Your task to perform on an android device: open app "Reddit" (install if not already installed) and go to login screen Image 0: 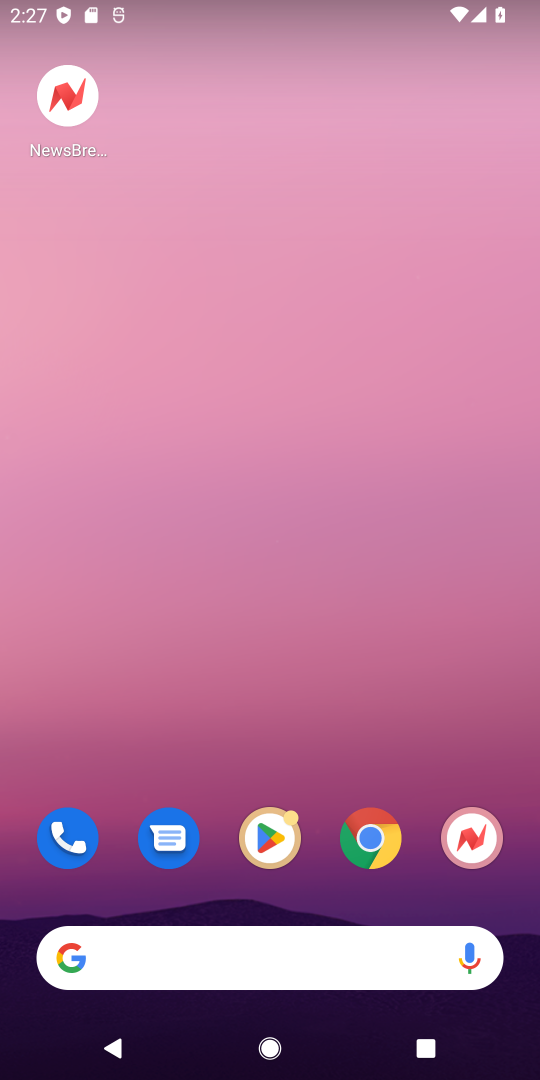
Step 0: press home button
Your task to perform on an android device: open app "Reddit" (install if not already installed) and go to login screen Image 1: 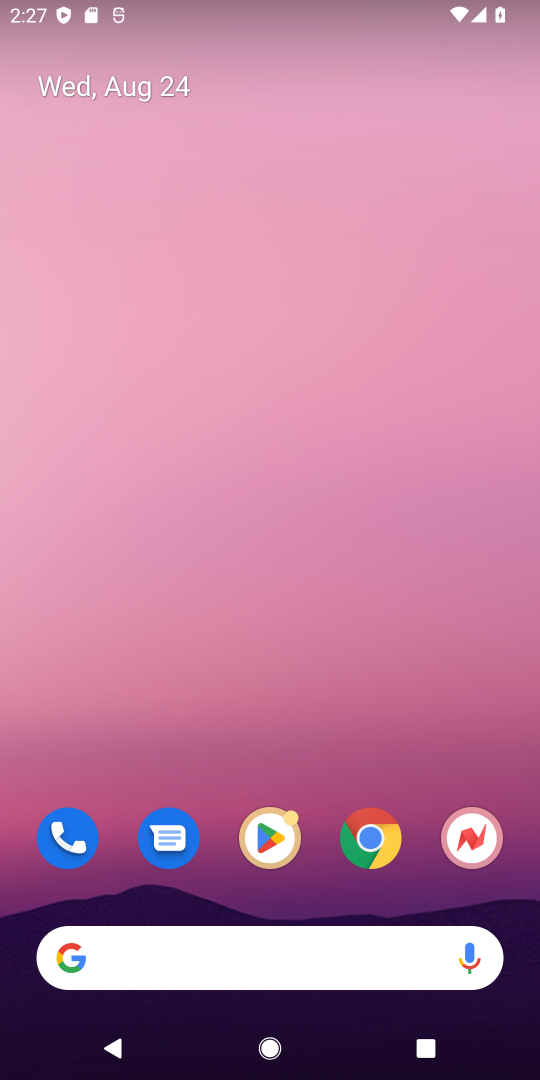
Step 1: drag from (443, 670) to (475, 65)
Your task to perform on an android device: open app "Reddit" (install if not already installed) and go to login screen Image 2: 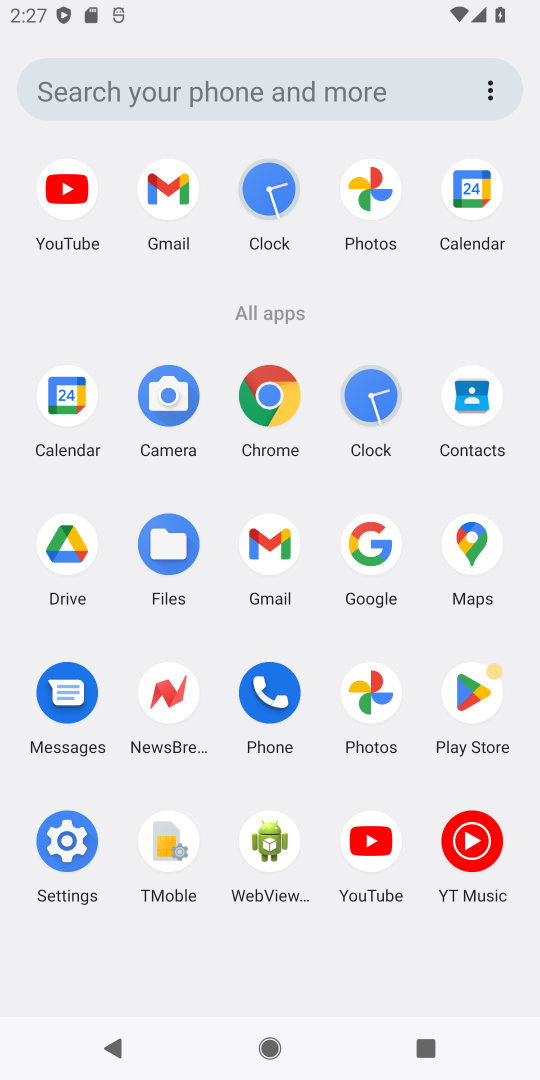
Step 2: click (471, 697)
Your task to perform on an android device: open app "Reddit" (install if not already installed) and go to login screen Image 3: 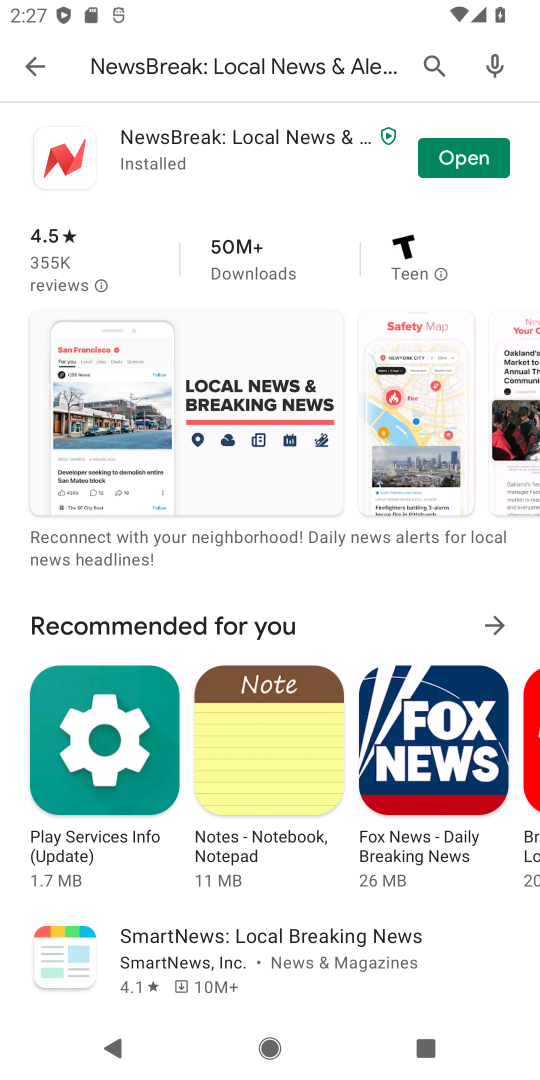
Step 3: press back button
Your task to perform on an android device: open app "Reddit" (install if not already installed) and go to login screen Image 4: 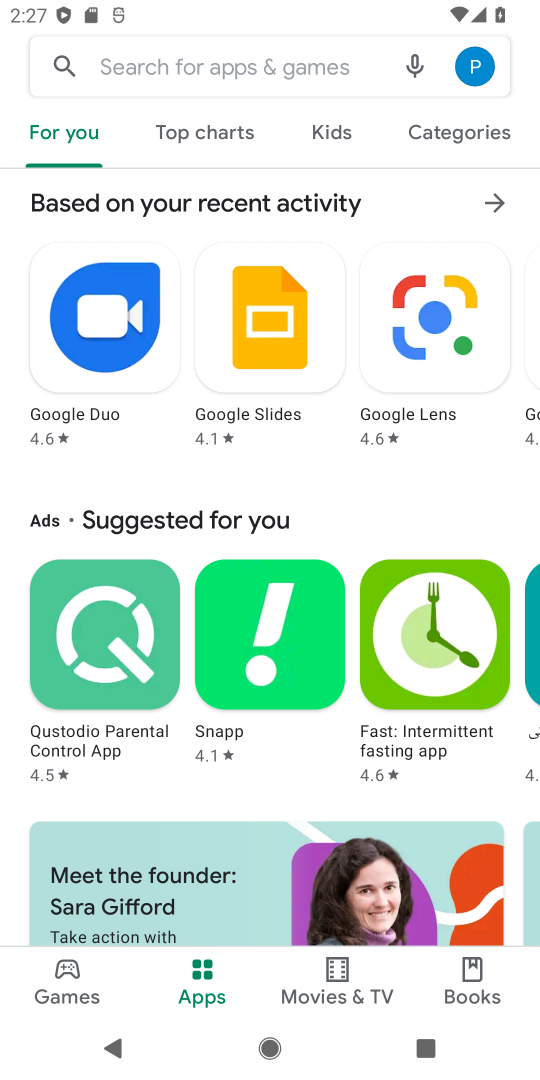
Step 4: click (324, 59)
Your task to perform on an android device: open app "Reddit" (install if not already installed) and go to login screen Image 5: 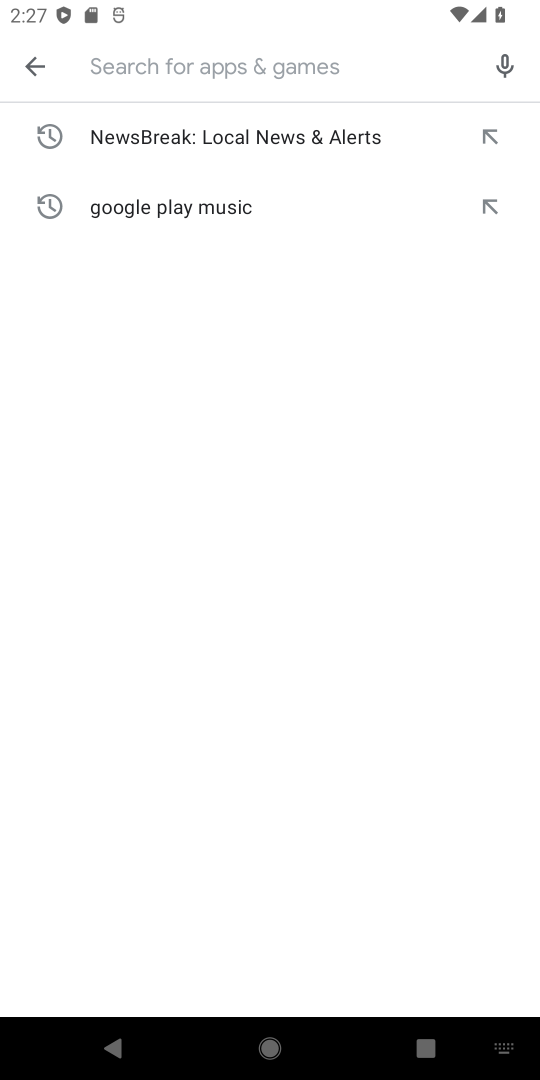
Step 5: press enter
Your task to perform on an android device: open app "Reddit" (install if not already installed) and go to login screen Image 6: 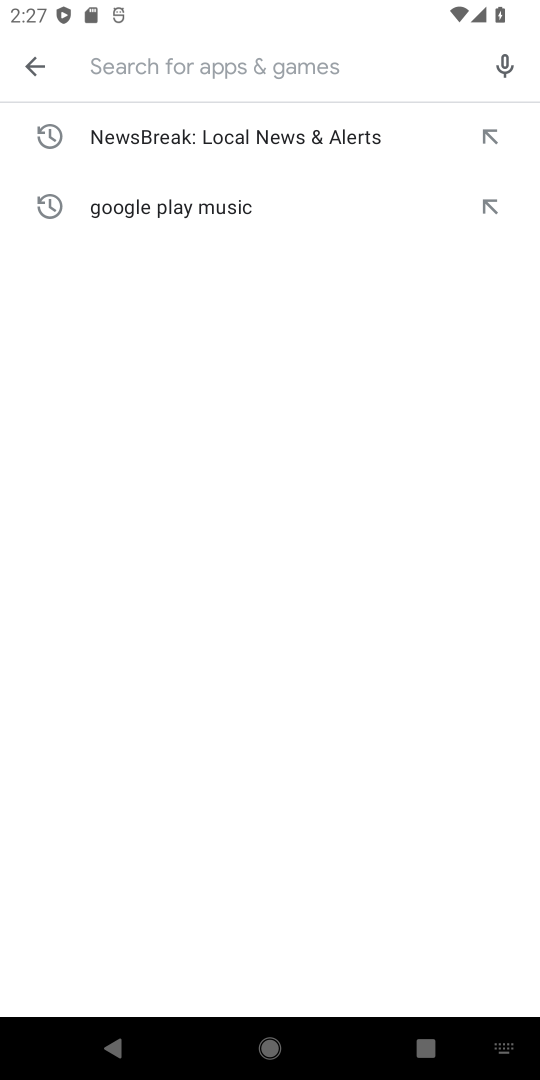
Step 6: type "reddit"
Your task to perform on an android device: open app "Reddit" (install if not already installed) and go to login screen Image 7: 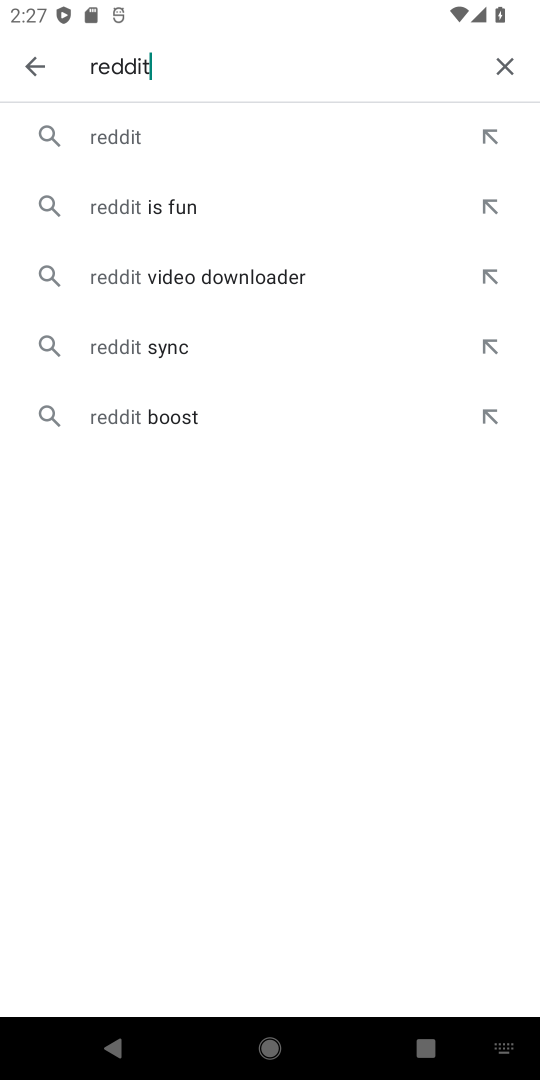
Step 7: click (125, 142)
Your task to perform on an android device: open app "Reddit" (install if not already installed) and go to login screen Image 8: 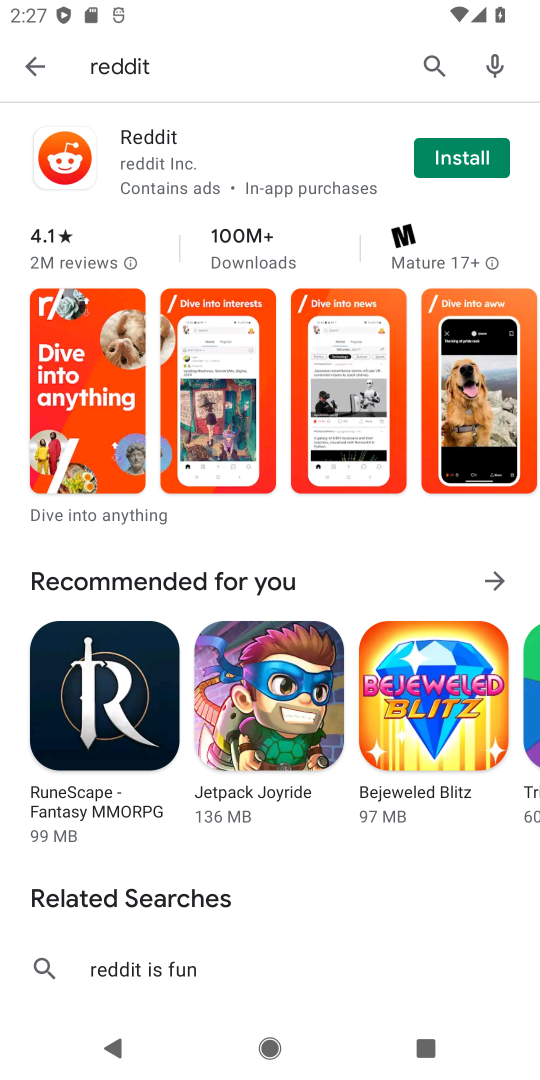
Step 8: click (457, 154)
Your task to perform on an android device: open app "Reddit" (install if not already installed) and go to login screen Image 9: 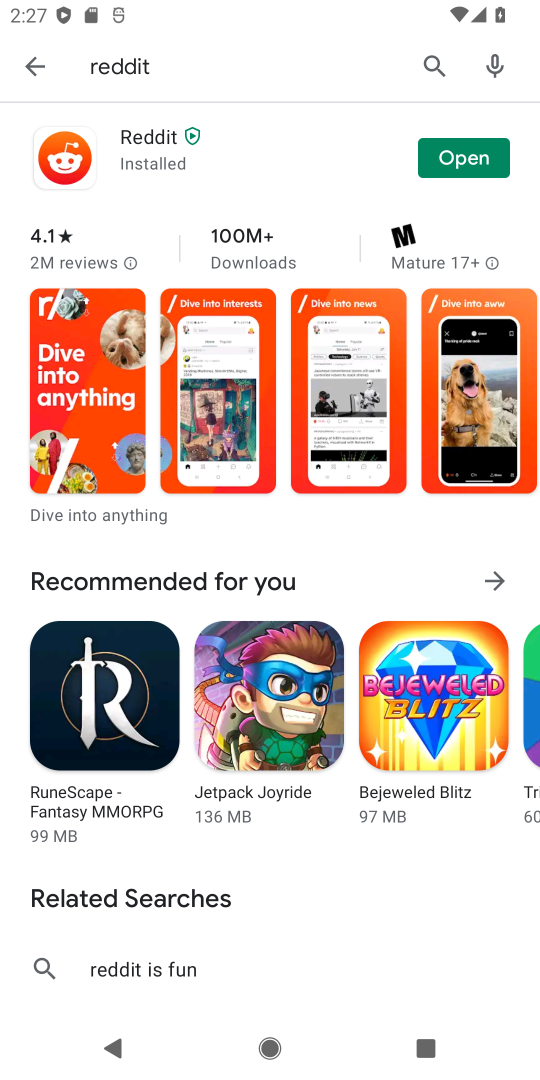
Step 9: click (462, 157)
Your task to perform on an android device: open app "Reddit" (install if not already installed) and go to login screen Image 10: 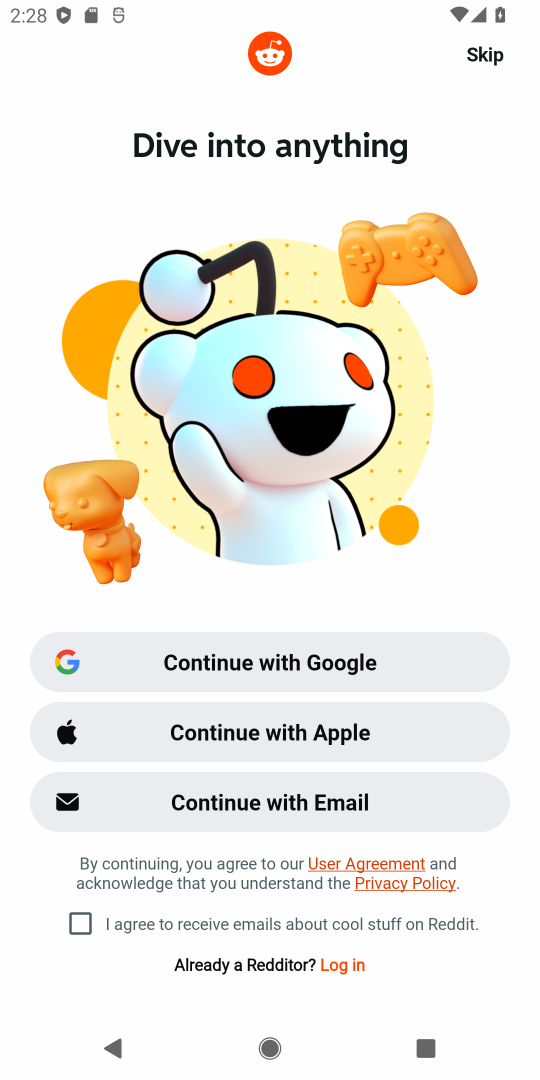
Step 10: task complete